Your task to perform on an android device: Go to privacy settings Image 0: 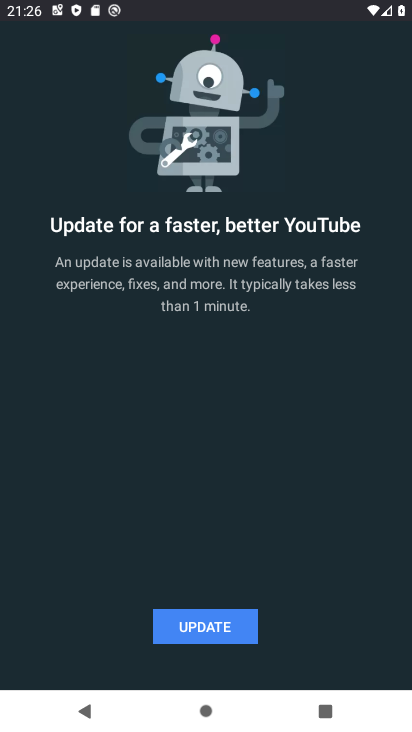
Step 0: press home button
Your task to perform on an android device: Go to privacy settings Image 1: 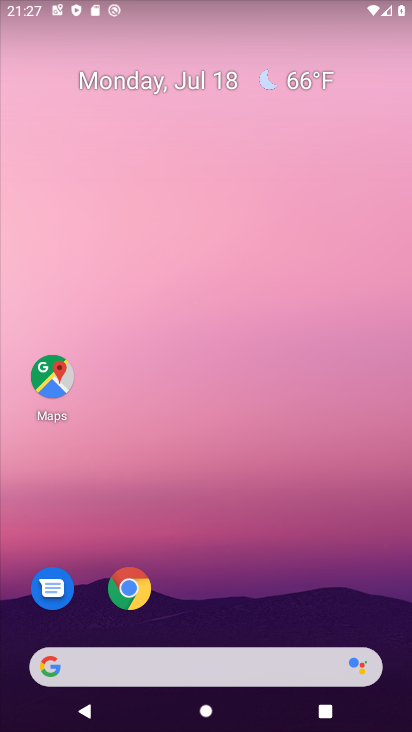
Step 1: drag from (190, 667) to (326, 74)
Your task to perform on an android device: Go to privacy settings Image 2: 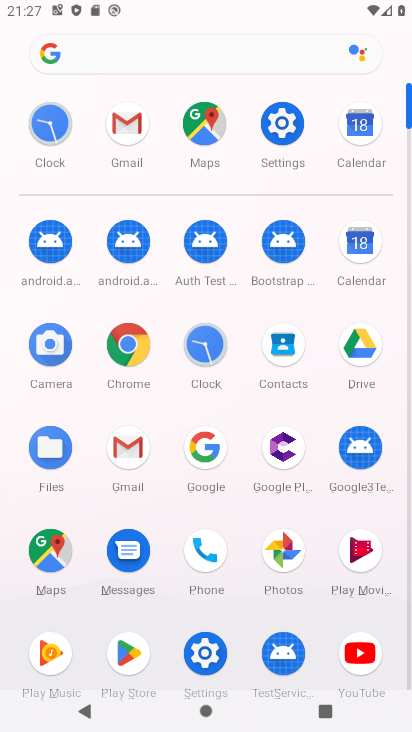
Step 2: click (283, 125)
Your task to perform on an android device: Go to privacy settings Image 3: 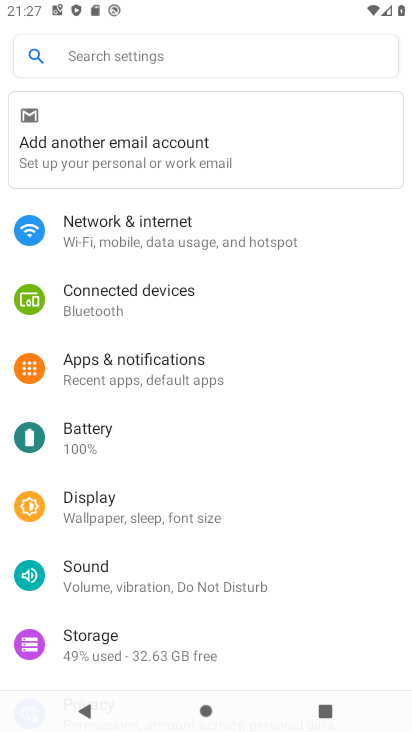
Step 3: drag from (303, 606) to (325, 158)
Your task to perform on an android device: Go to privacy settings Image 4: 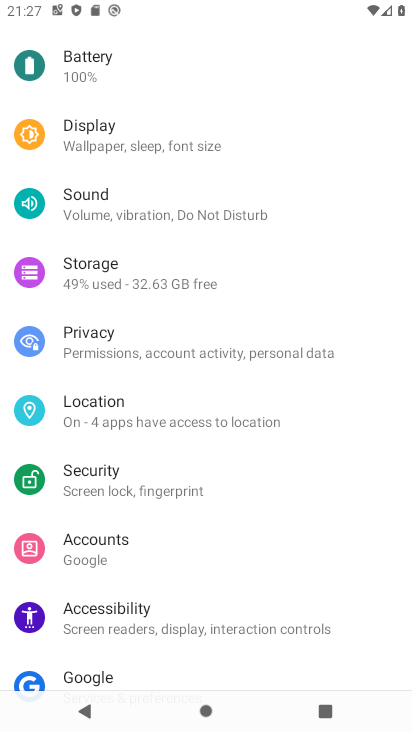
Step 4: click (109, 337)
Your task to perform on an android device: Go to privacy settings Image 5: 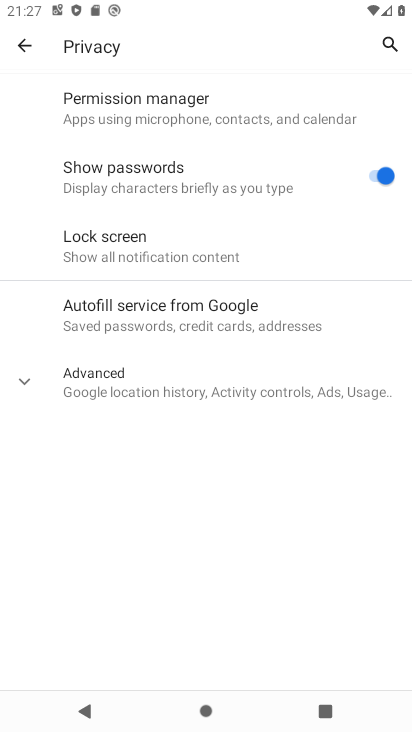
Step 5: task complete